Your task to perform on an android device: Go to privacy settings Image 0: 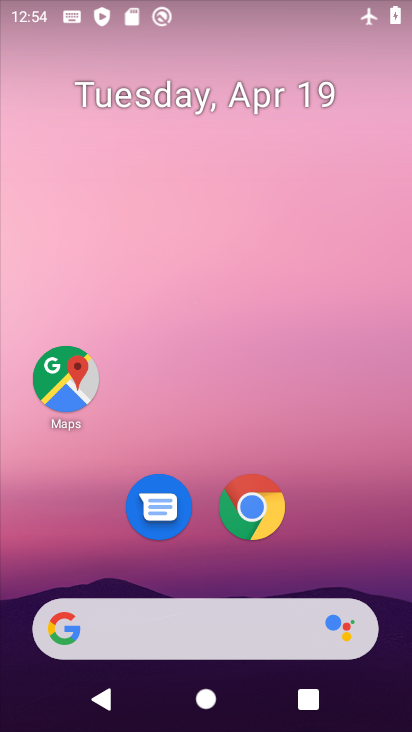
Step 0: drag from (213, 569) to (212, 5)
Your task to perform on an android device: Go to privacy settings Image 1: 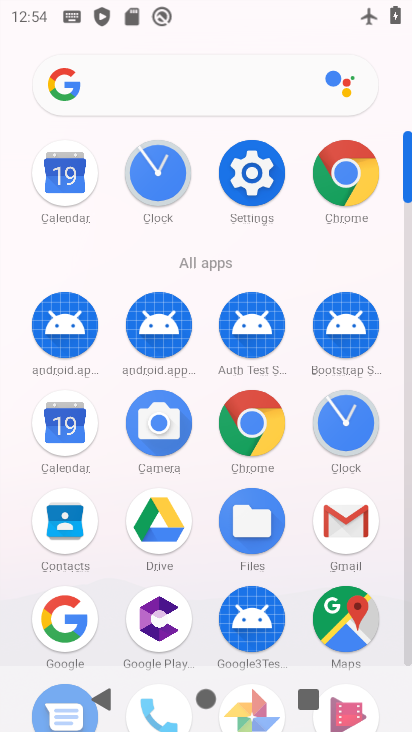
Step 1: click (253, 168)
Your task to perform on an android device: Go to privacy settings Image 2: 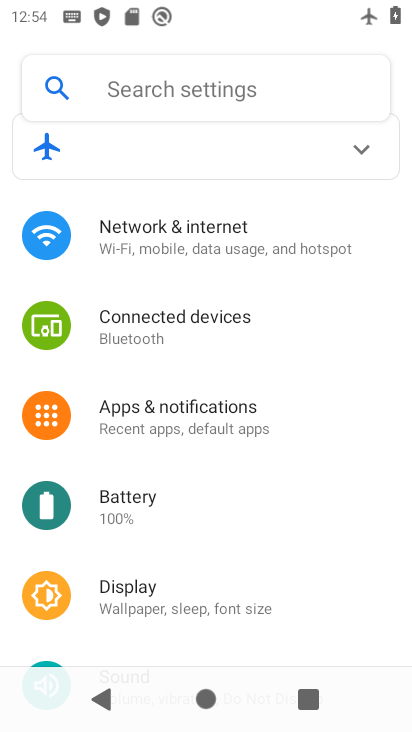
Step 2: drag from (236, 593) to (230, 134)
Your task to perform on an android device: Go to privacy settings Image 3: 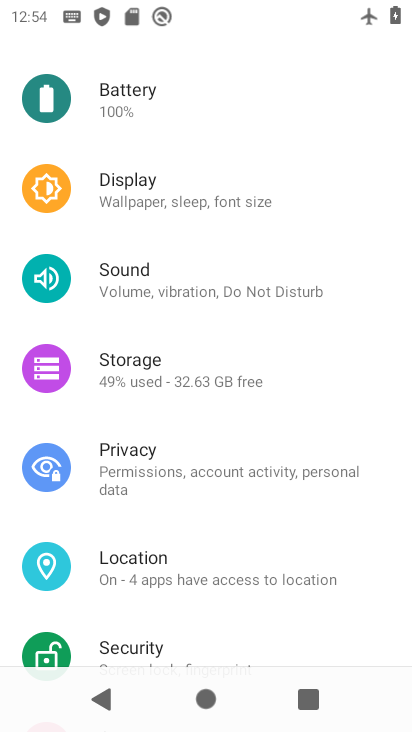
Step 3: click (162, 449)
Your task to perform on an android device: Go to privacy settings Image 4: 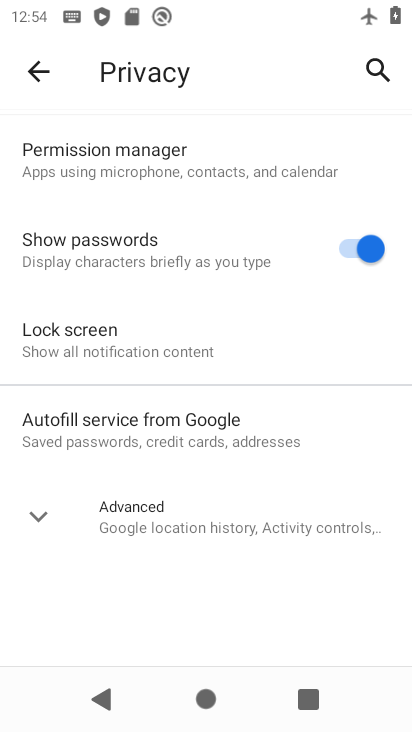
Step 4: click (47, 506)
Your task to perform on an android device: Go to privacy settings Image 5: 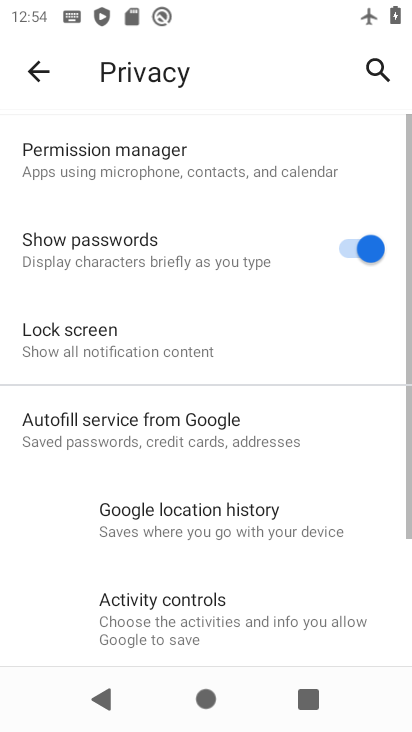
Step 5: task complete